Your task to perform on an android device: allow notifications from all sites in the chrome app Image 0: 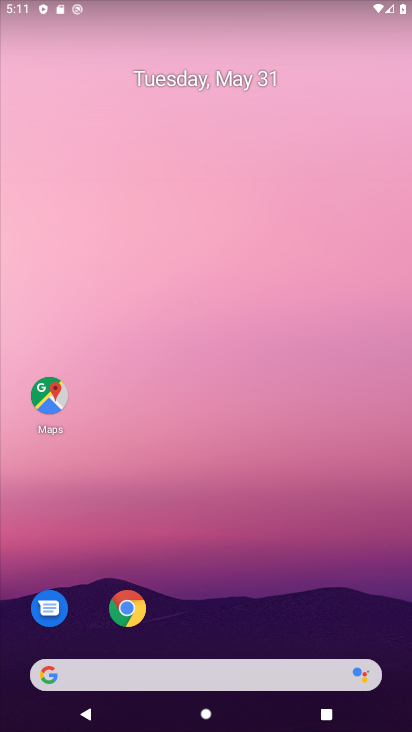
Step 0: click (128, 606)
Your task to perform on an android device: allow notifications from all sites in the chrome app Image 1: 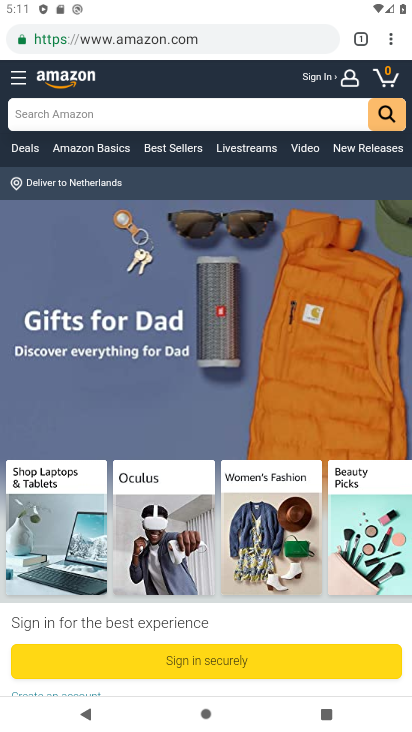
Step 1: click (389, 38)
Your task to perform on an android device: allow notifications from all sites in the chrome app Image 2: 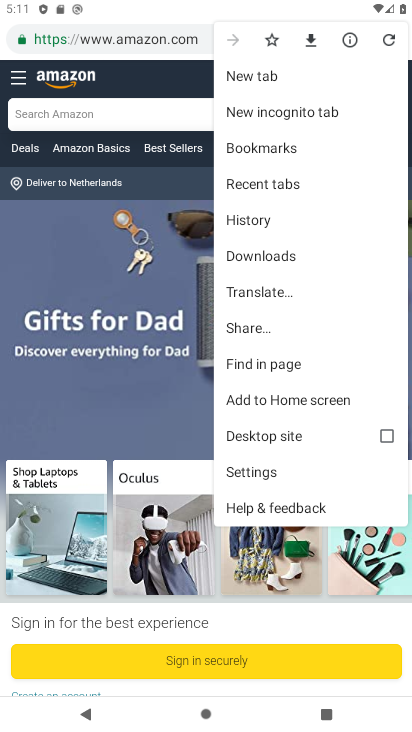
Step 2: click (261, 471)
Your task to perform on an android device: allow notifications from all sites in the chrome app Image 3: 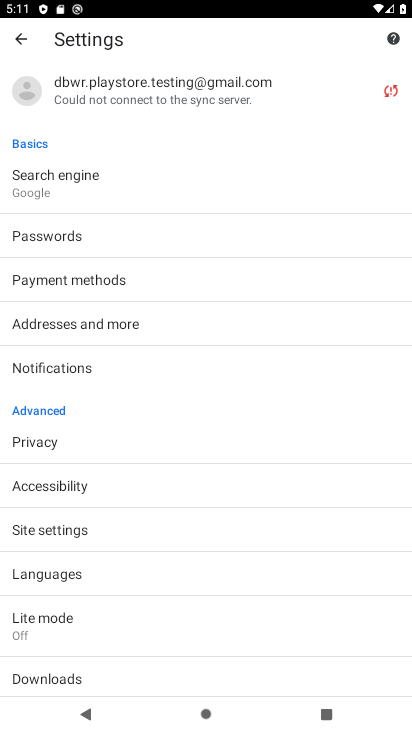
Step 3: click (73, 533)
Your task to perform on an android device: allow notifications from all sites in the chrome app Image 4: 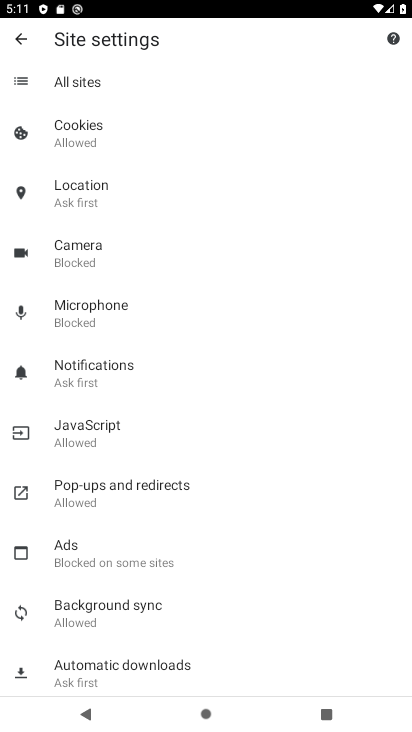
Step 4: click (108, 375)
Your task to perform on an android device: allow notifications from all sites in the chrome app Image 5: 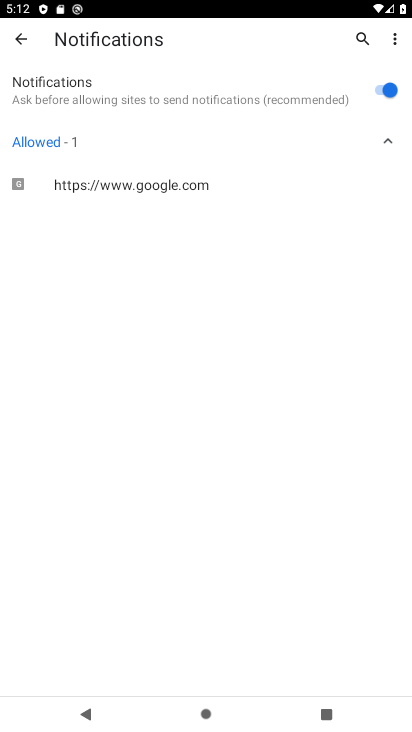
Step 5: task complete